Your task to perform on an android device: change timer sound Image 0: 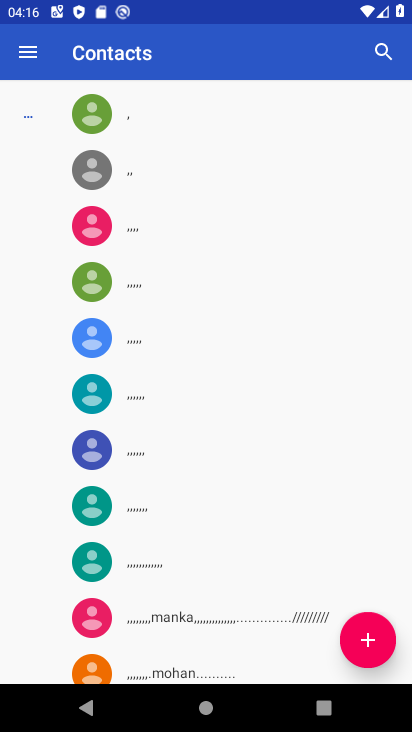
Step 0: press home button
Your task to perform on an android device: change timer sound Image 1: 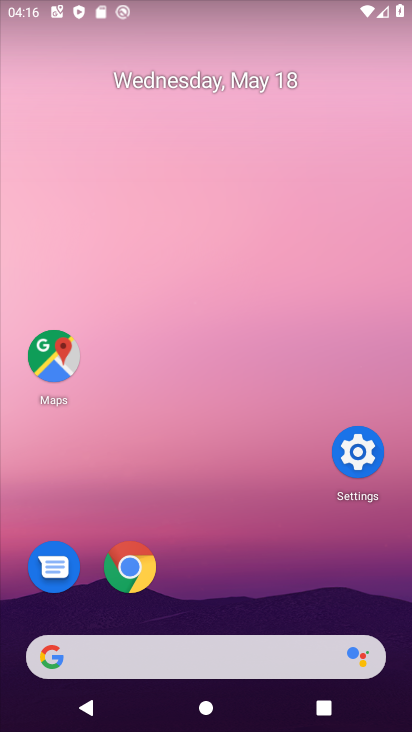
Step 1: drag from (257, 535) to (299, 124)
Your task to perform on an android device: change timer sound Image 2: 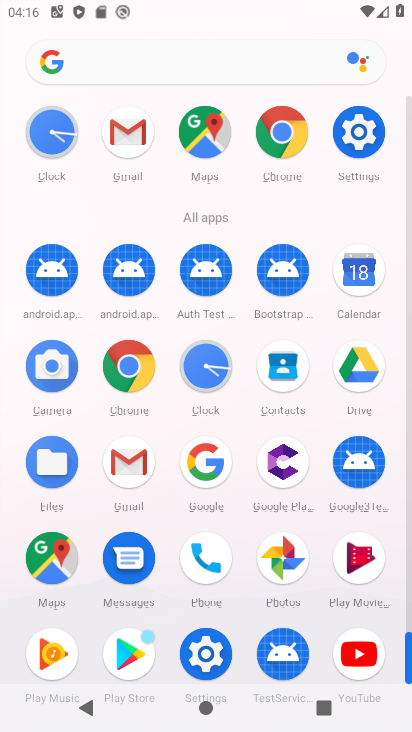
Step 2: click (60, 140)
Your task to perform on an android device: change timer sound Image 3: 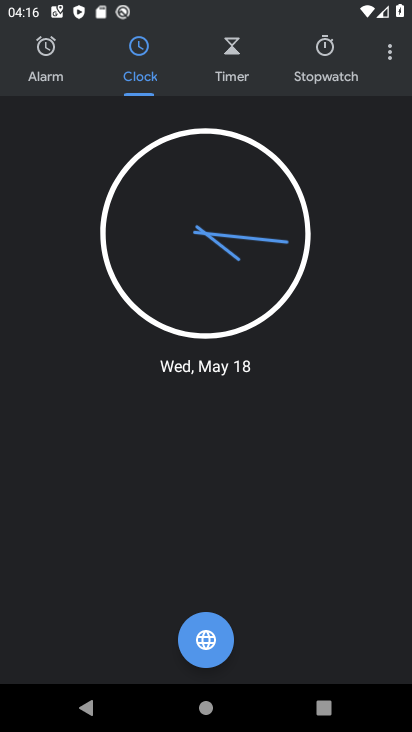
Step 3: click (393, 58)
Your task to perform on an android device: change timer sound Image 4: 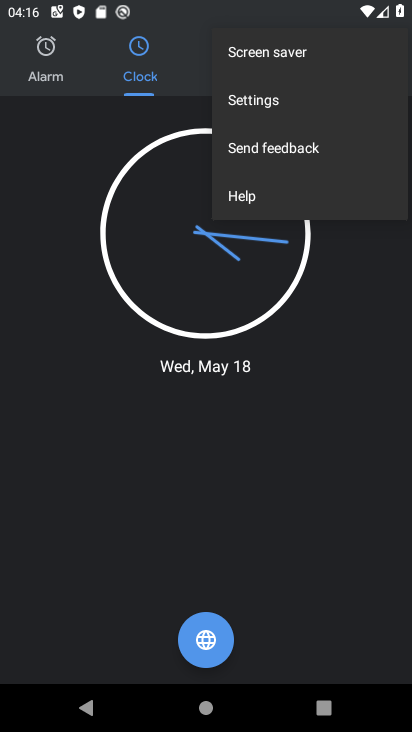
Step 4: click (266, 96)
Your task to perform on an android device: change timer sound Image 5: 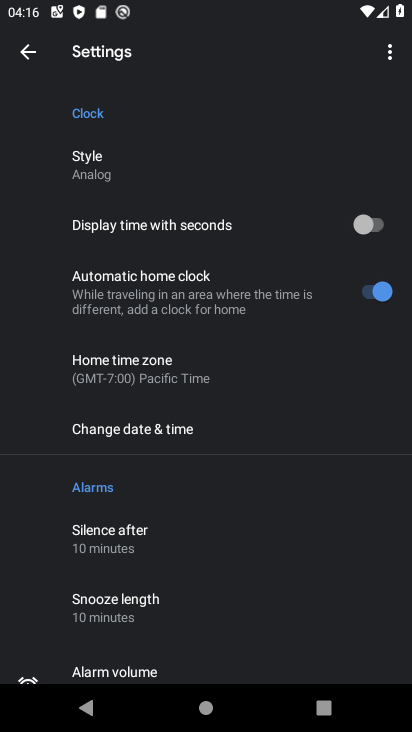
Step 5: drag from (251, 572) to (277, 98)
Your task to perform on an android device: change timer sound Image 6: 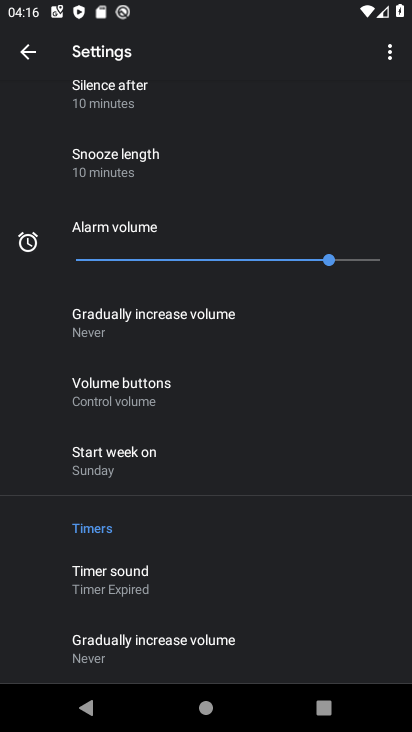
Step 6: click (87, 575)
Your task to perform on an android device: change timer sound Image 7: 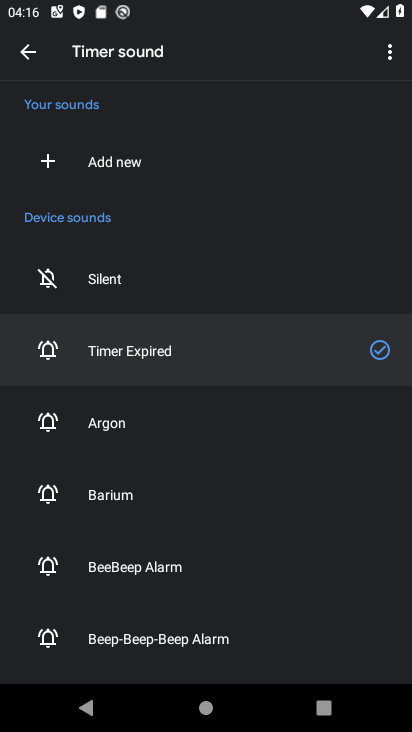
Step 7: click (166, 433)
Your task to perform on an android device: change timer sound Image 8: 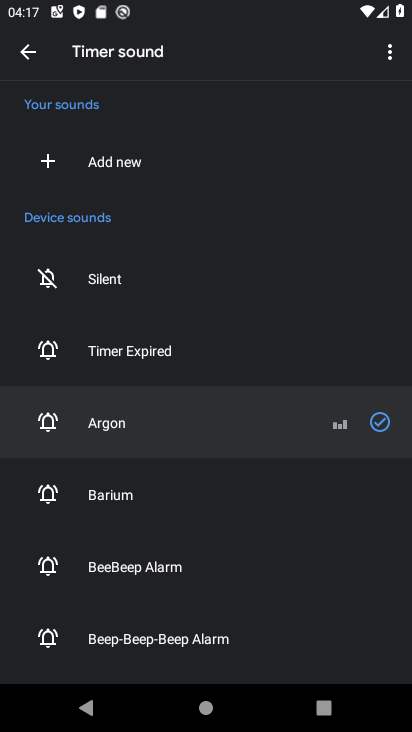
Step 8: click (377, 419)
Your task to perform on an android device: change timer sound Image 9: 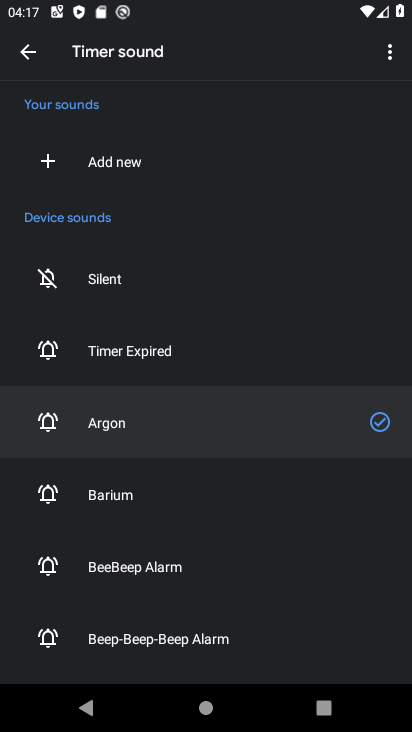
Step 9: task complete